Your task to perform on an android device: change notifications settings Image 0: 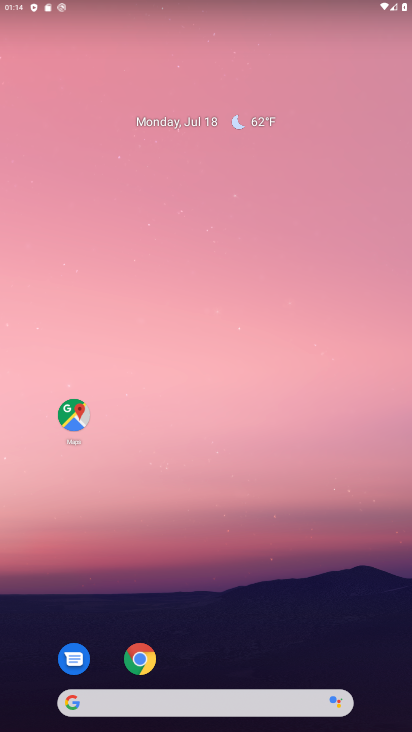
Step 0: drag from (234, 553) to (180, 102)
Your task to perform on an android device: change notifications settings Image 1: 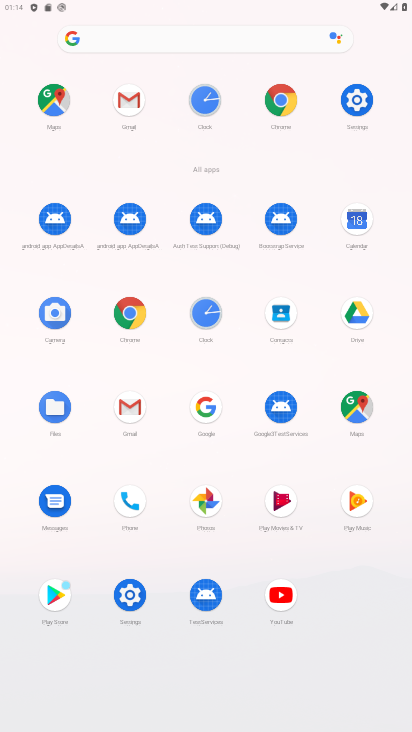
Step 1: click (357, 105)
Your task to perform on an android device: change notifications settings Image 2: 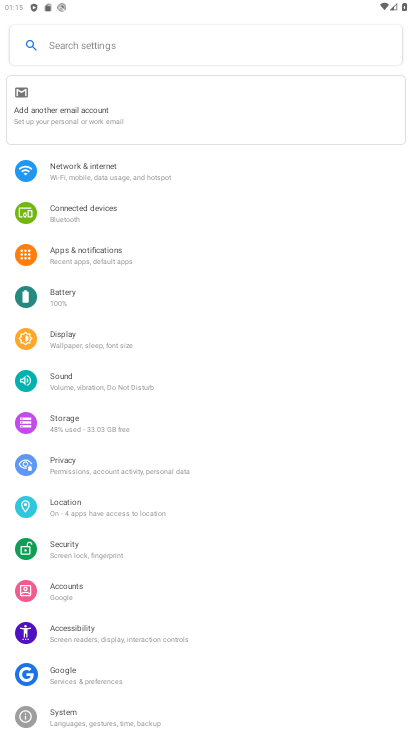
Step 2: click (94, 253)
Your task to perform on an android device: change notifications settings Image 3: 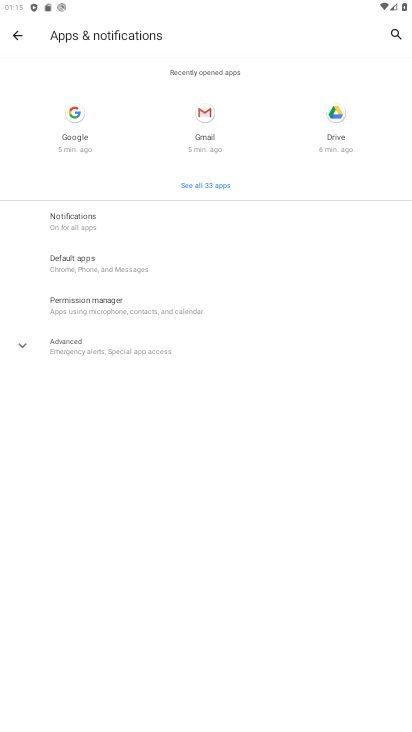
Step 3: click (81, 223)
Your task to perform on an android device: change notifications settings Image 4: 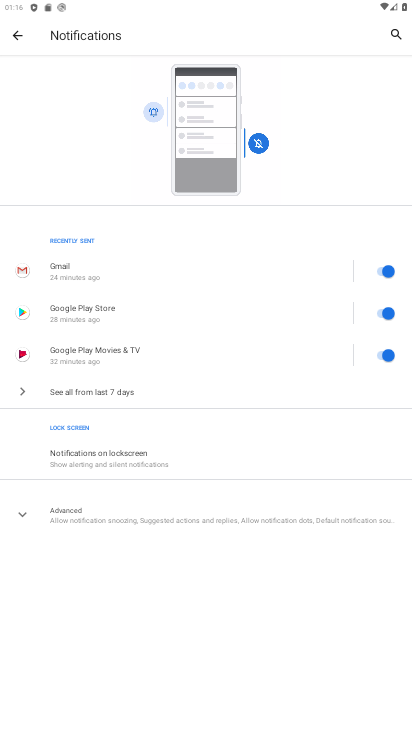
Step 4: click (193, 505)
Your task to perform on an android device: change notifications settings Image 5: 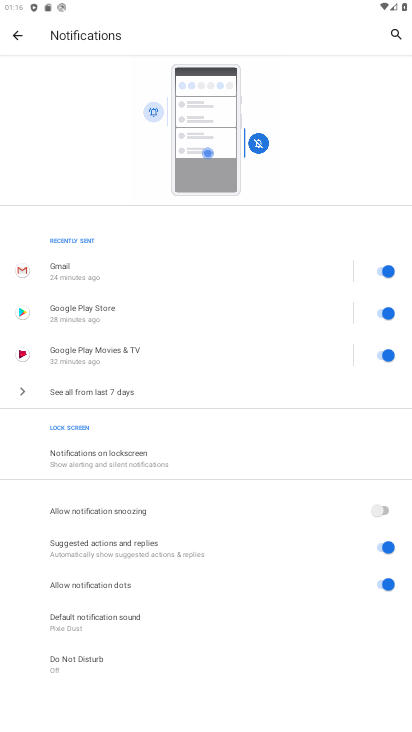
Step 5: click (379, 513)
Your task to perform on an android device: change notifications settings Image 6: 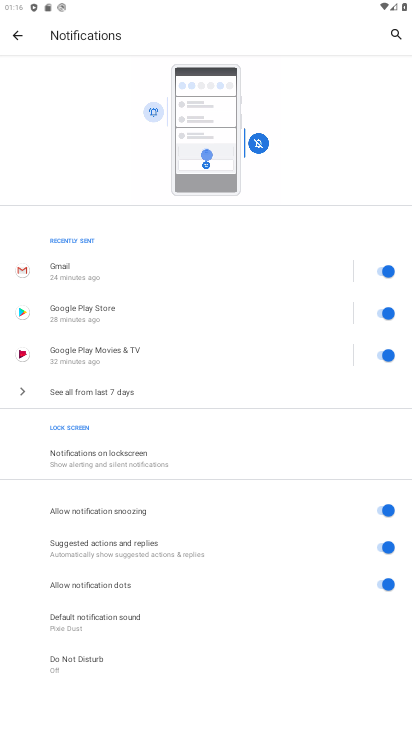
Step 6: task complete